Your task to perform on an android device: check data usage Image 0: 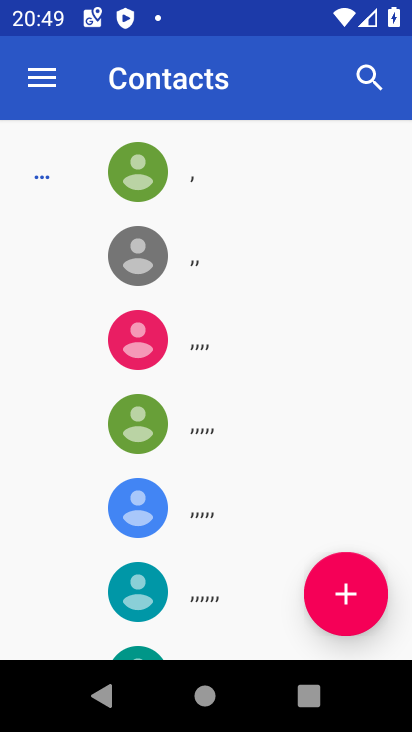
Step 0: press home button
Your task to perform on an android device: check data usage Image 1: 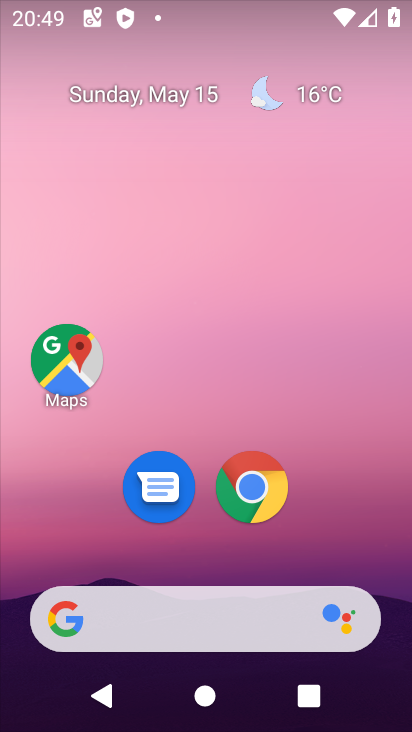
Step 1: drag from (402, 661) to (408, 85)
Your task to perform on an android device: check data usage Image 2: 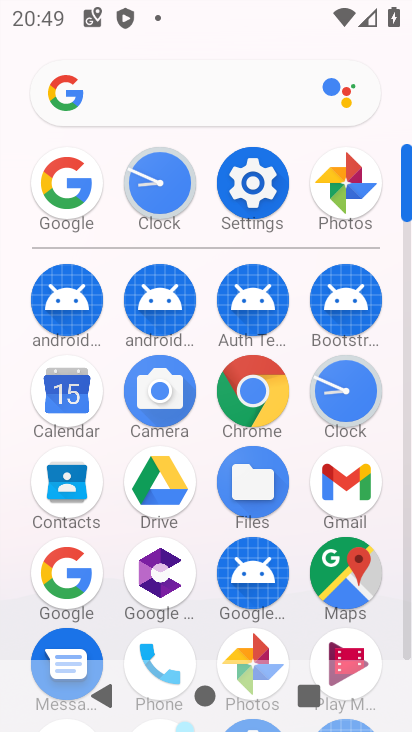
Step 2: click (232, 189)
Your task to perform on an android device: check data usage Image 3: 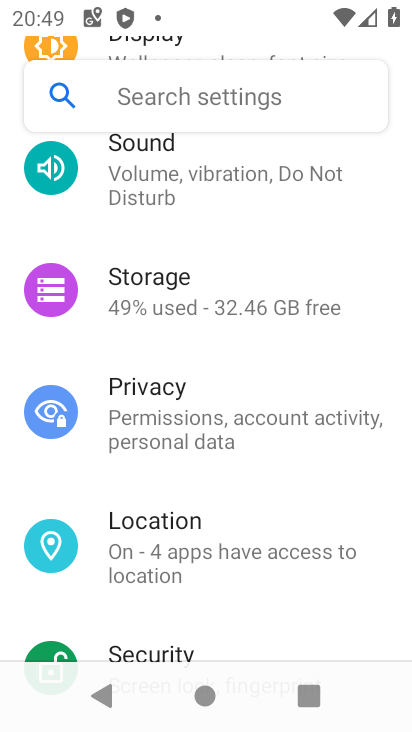
Step 3: drag from (383, 160) to (370, 581)
Your task to perform on an android device: check data usage Image 4: 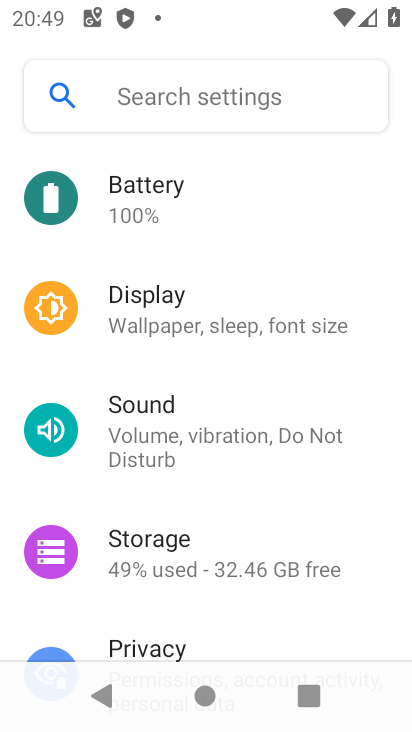
Step 4: drag from (373, 237) to (357, 604)
Your task to perform on an android device: check data usage Image 5: 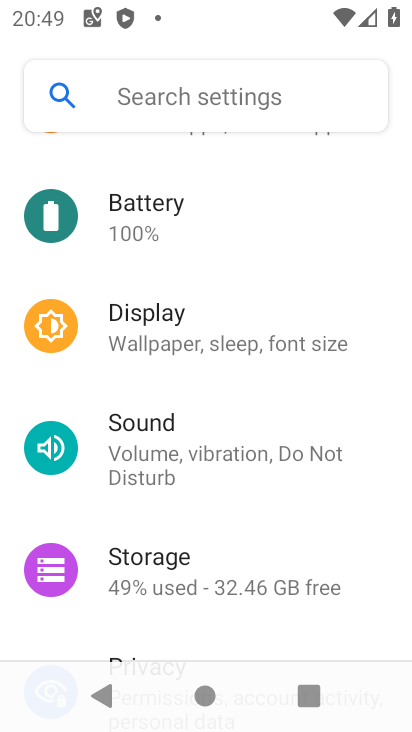
Step 5: drag from (348, 218) to (364, 585)
Your task to perform on an android device: check data usage Image 6: 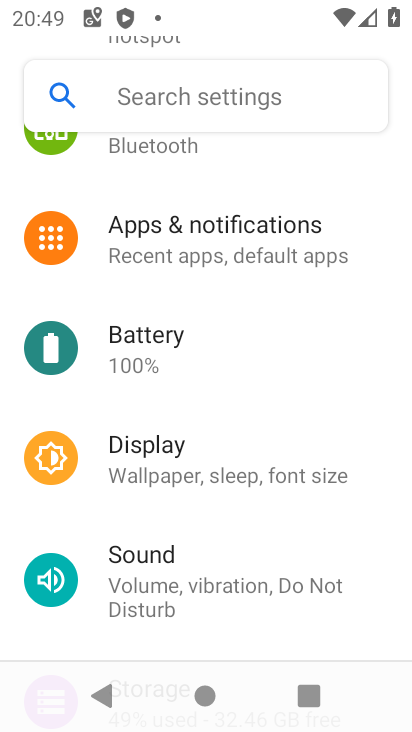
Step 6: drag from (361, 279) to (365, 540)
Your task to perform on an android device: check data usage Image 7: 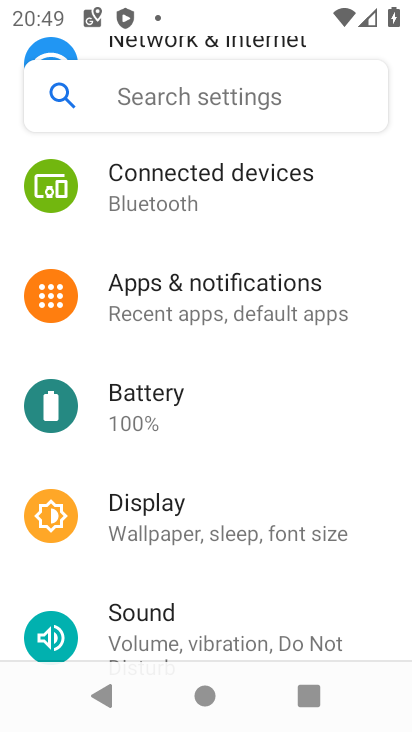
Step 7: drag from (354, 215) to (339, 544)
Your task to perform on an android device: check data usage Image 8: 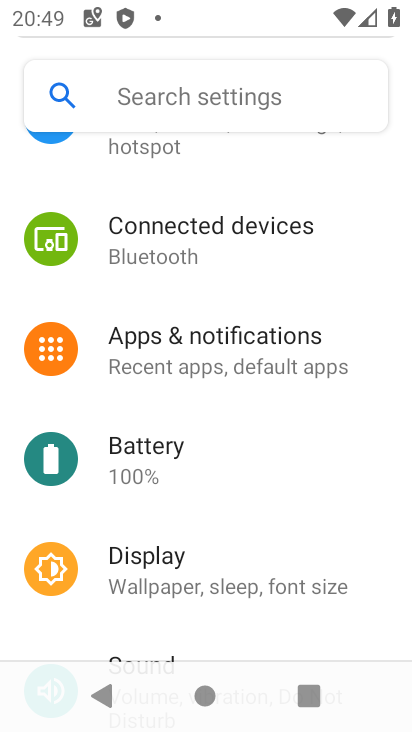
Step 8: drag from (366, 205) to (365, 515)
Your task to perform on an android device: check data usage Image 9: 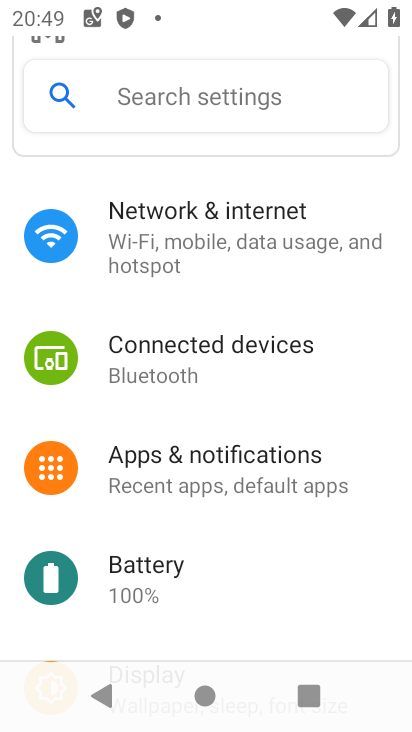
Step 9: click (205, 238)
Your task to perform on an android device: check data usage Image 10: 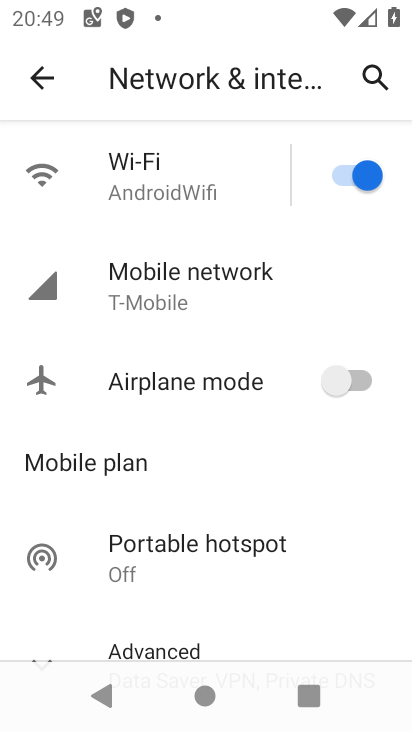
Step 10: click (164, 286)
Your task to perform on an android device: check data usage Image 11: 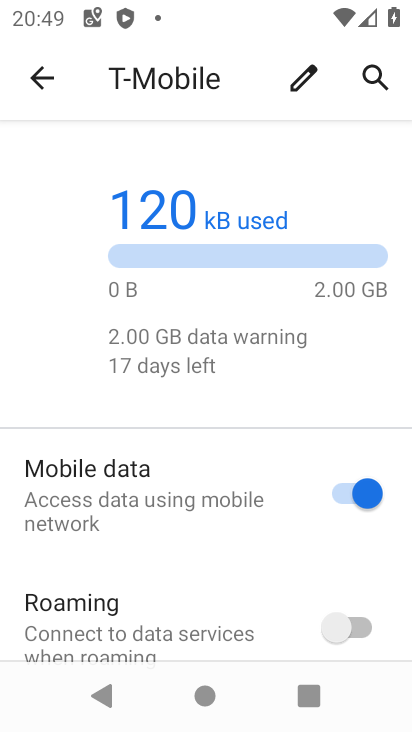
Step 11: task complete